Your task to perform on an android device: Open Google Maps and go to "Timeline" Image 0: 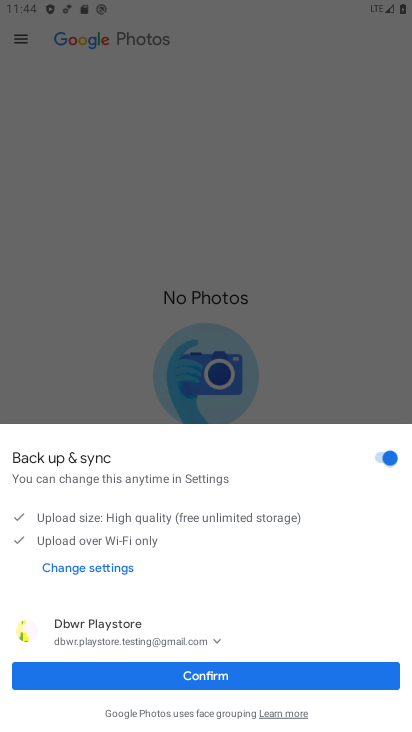
Step 0: press home button
Your task to perform on an android device: Open Google Maps and go to "Timeline" Image 1: 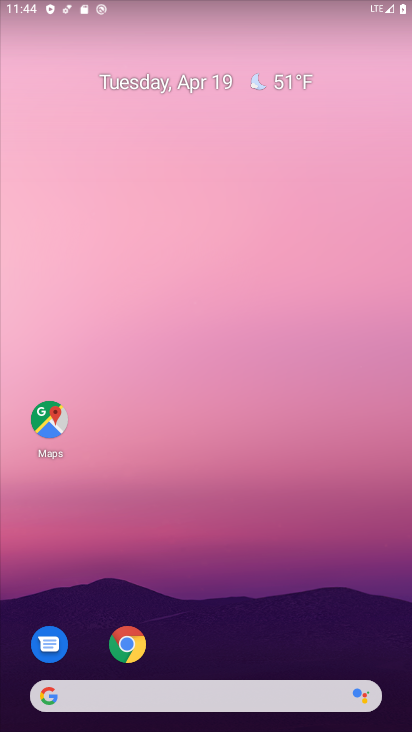
Step 1: drag from (213, 724) to (210, 73)
Your task to perform on an android device: Open Google Maps and go to "Timeline" Image 2: 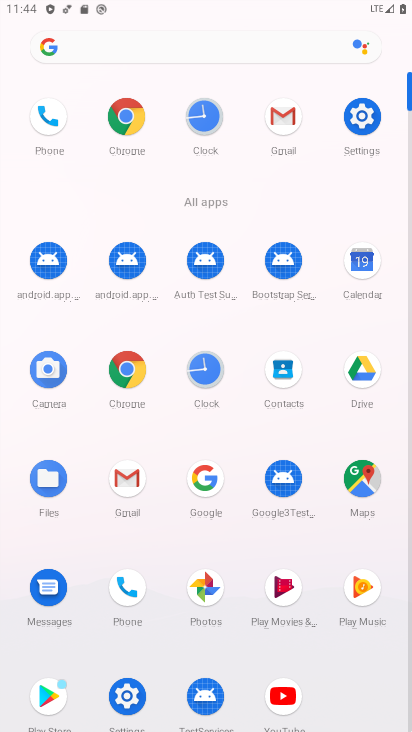
Step 2: click (362, 474)
Your task to perform on an android device: Open Google Maps and go to "Timeline" Image 3: 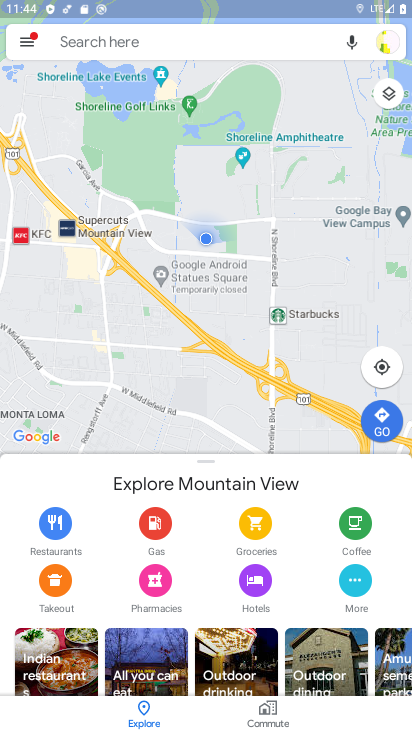
Step 3: click (26, 40)
Your task to perform on an android device: Open Google Maps and go to "Timeline" Image 4: 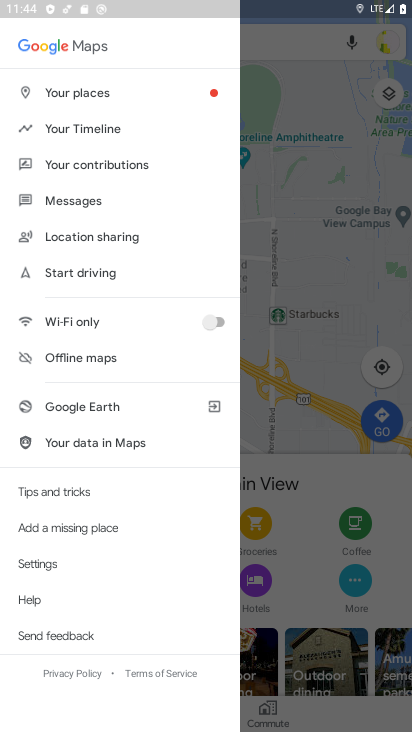
Step 4: click (97, 126)
Your task to perform on an android device: Open Google Maps and go to "Timeline" Image 5: 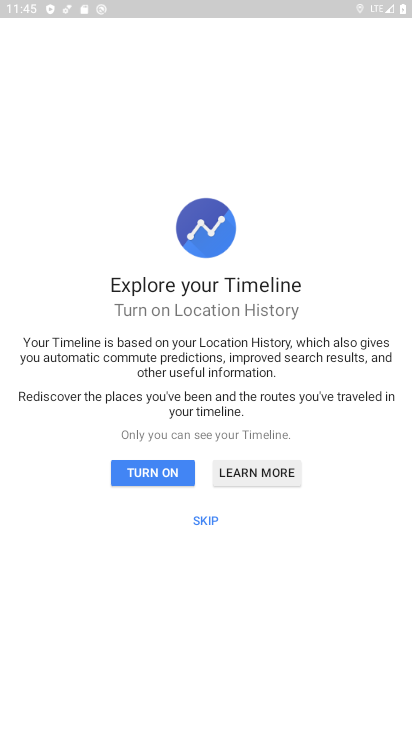
Step 5: click (205, 519)
Your task to perform on an android device: Open Google Maps and go to "Timeline" Image 6: 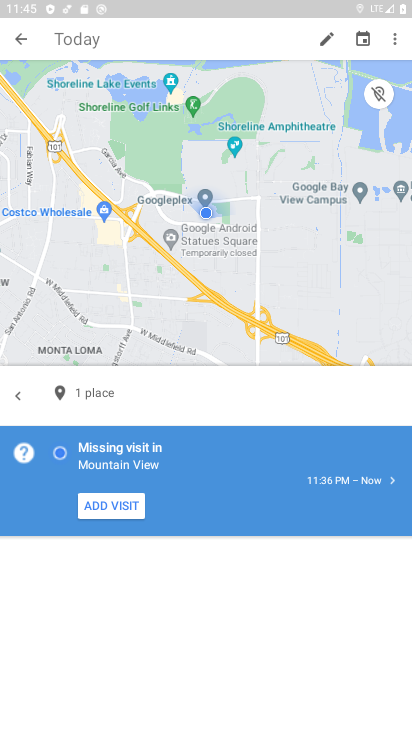
Step 6: task complete